Your task to perform on an android device: Go to Amazon Image 0: 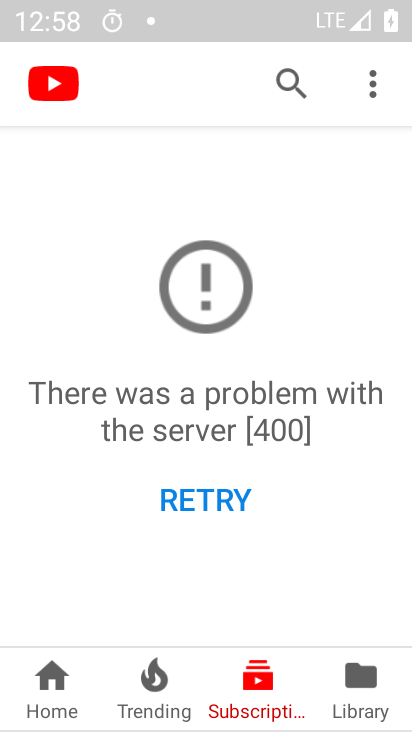
Step 0: press home button
Your task to perform on an android device: Go to Amazon Image 1: 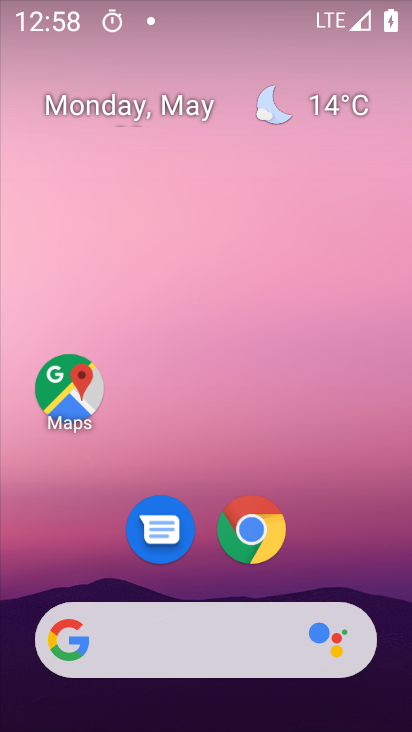
Step 1: drag from (373, 559) to (361, 201)
Your task to perform on an android device: Go to Amazon Image 2: 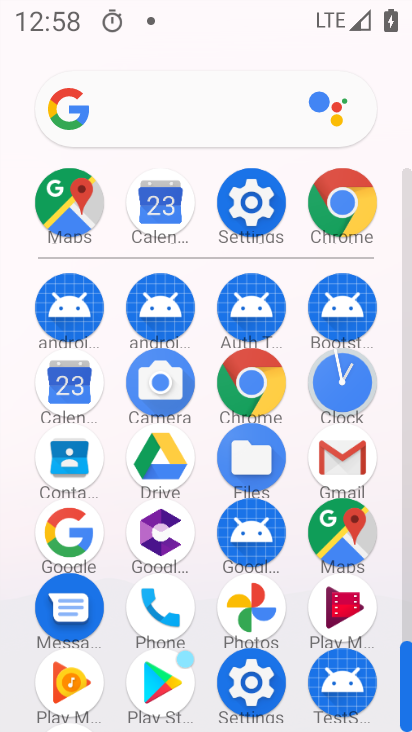
Step 2: click (250, 390)
Your task to perform on an android device: Go to Amazon Image 3: 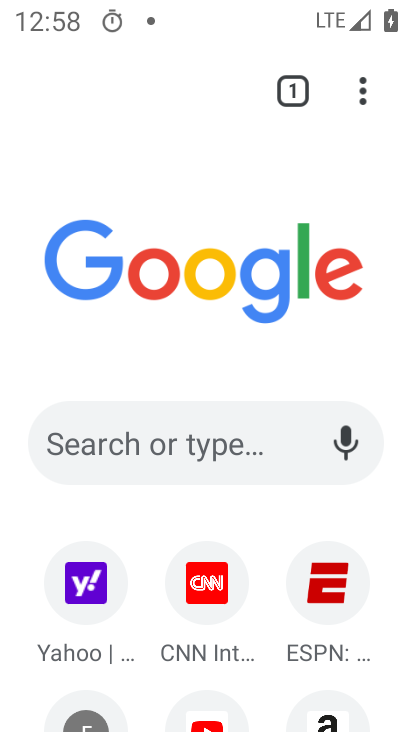
Step 3: drag from (270, 531) to (259, 360)
Your task to perform on an android device: Go to Amazon Image 4: 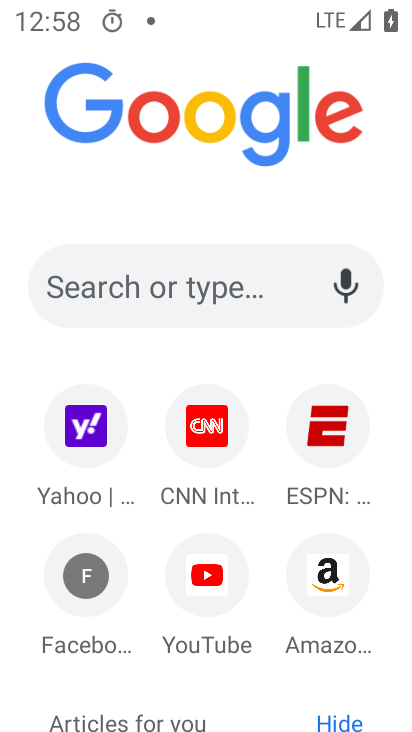
Step 4: drag from (256, 602) to (252, 429)
Your task to perform on an android device: Go to Amazon Image 5: 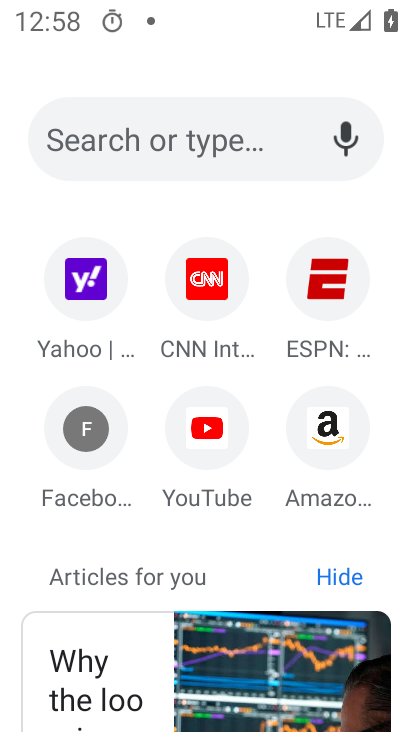
Step 5: click (311, 444)
Your task to perform on an android device: Go to Amazon Image 6: 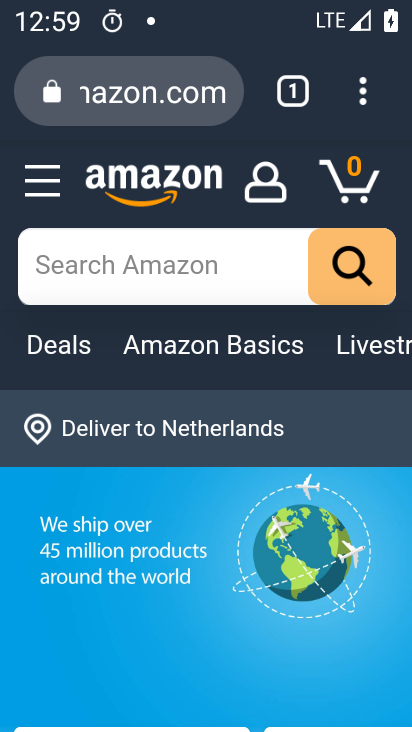
Step 6: task complete